Your task to perform on an android device: allow cookies in the chrome app Image 0: 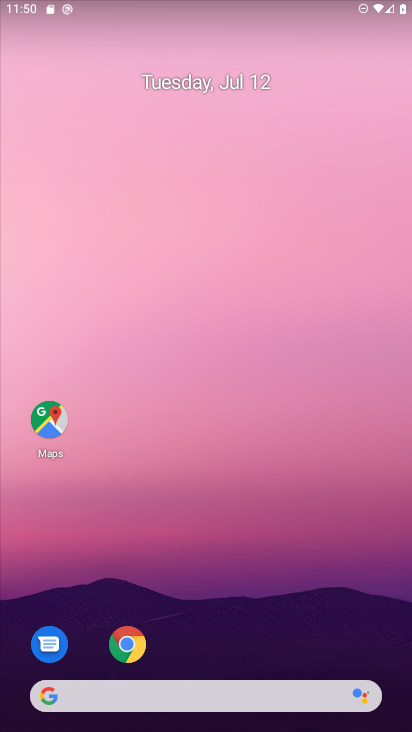
Step 0: click (133, 647)
Your task to perform on an android device: allow cookies in the chrome app Image 1: 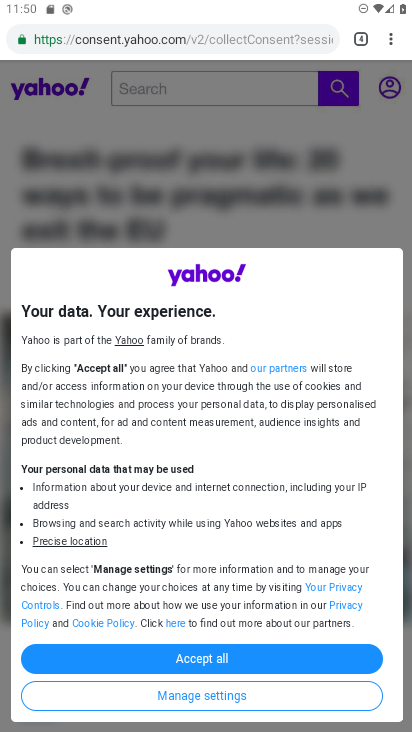
Step 1: click (388, 41)
Your task to perform on an android device: allow cookies in the chrome app Image 2: 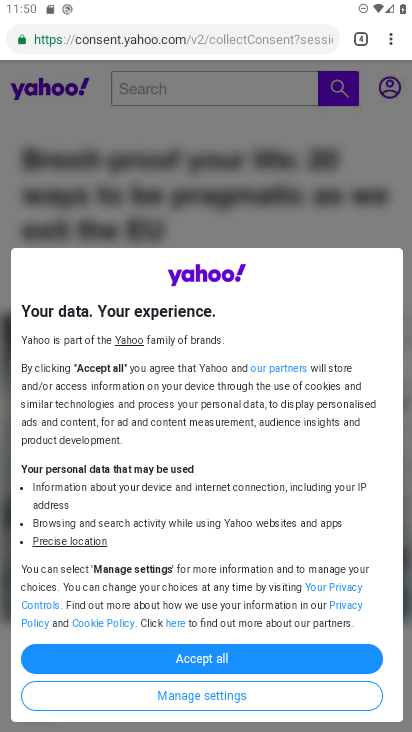
Step 2: click (388, 41)
Your task to perform on an android device: allow cookies in the chrome app Image 3: 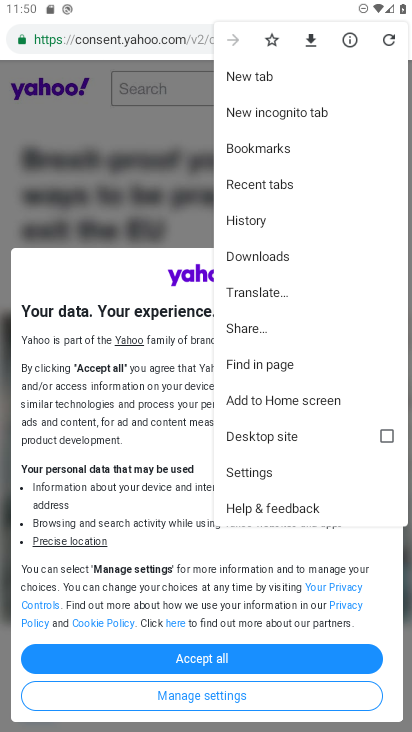
Step 3: click (278, 471)
Your task to perform on an android device: allow cookies in the chrome app Image 4: 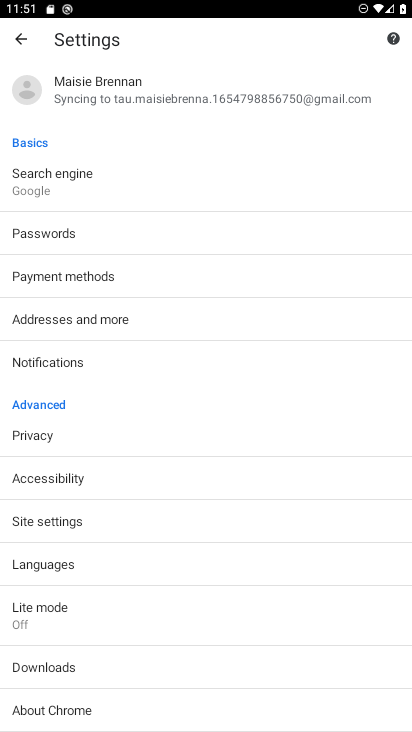
Step 4: click (86, 525)
Your task to perform on an android device: allow cookies in the chrome app Image 5: 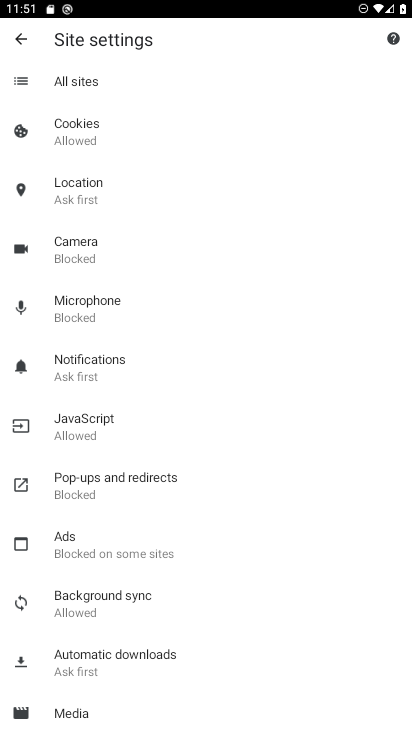
Step 5: click (115, 143)
Your task to perform on an android device: allow cookies in the chrome app Image 6: 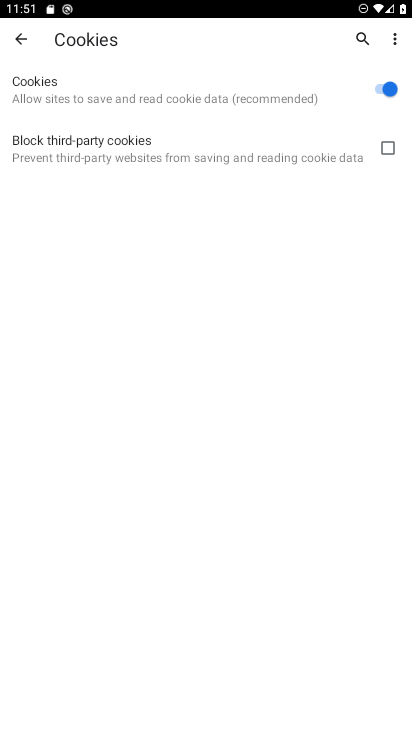
Step 6: task complete